Your task to perform on an android device: stop showing notifications on the lock screen Image 0: 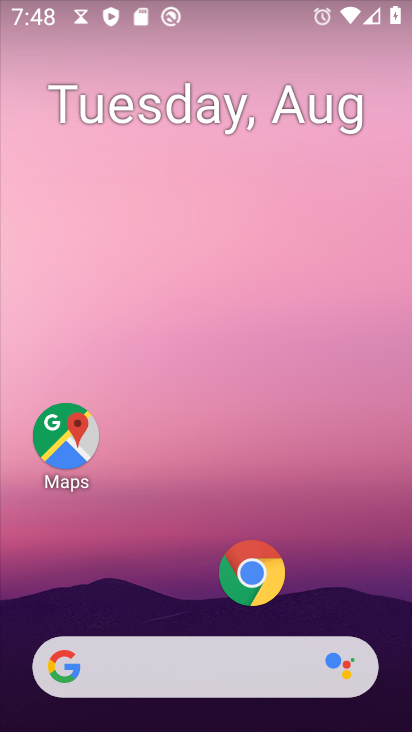
Step 0: click (215, 60)
Your task to perform on an android device: stop showing notifications on the lock screen Image 1: 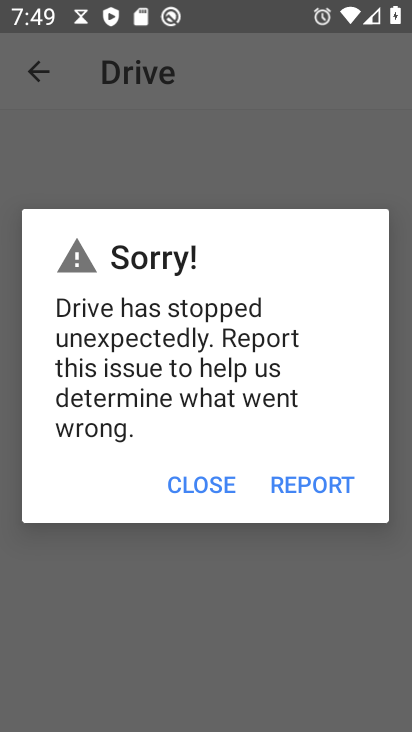
Step 1: press home button
Your task to perform on an android device: stop showing notifications on the lock screen Image 2: 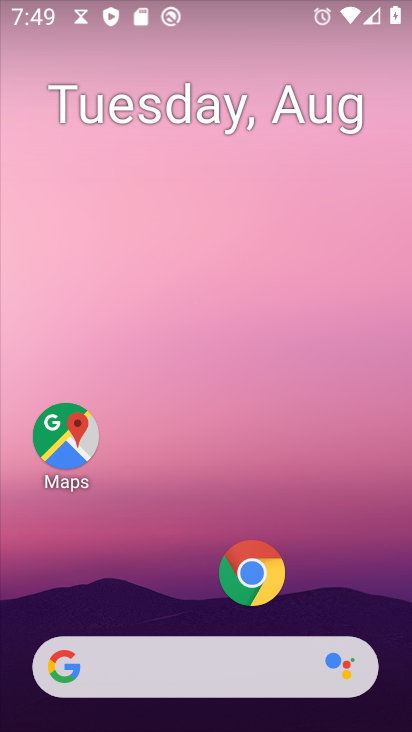
Step 2: drag from (195, 614) to (198, 30)
Your task to perform on an android device: stop showing notifications on the lock screen Image 3: 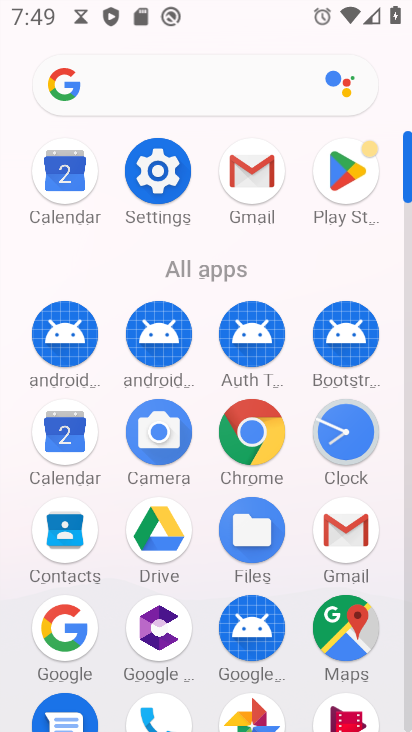
Step 3: click (160, 167)
Your task to perform on an android device: stop showing notifications on the lock screen Image 4: 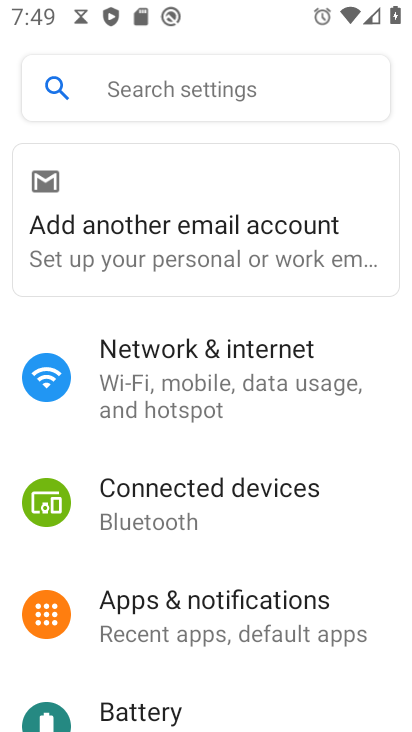
Step 4: click (142, 615)
Your task to perform on an android device: stop showing notifications on the lock screen Image 5: 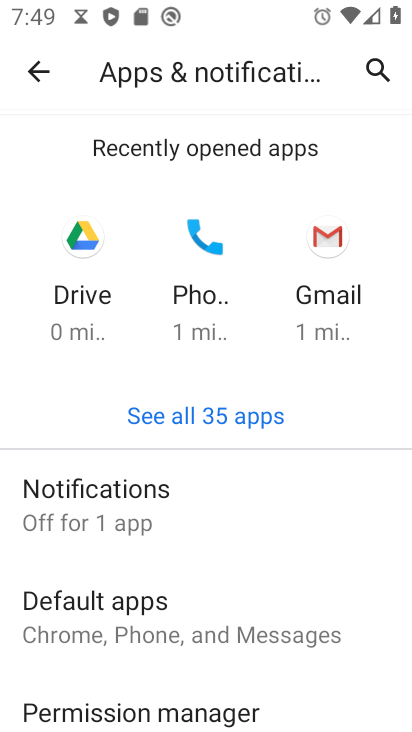
Step 5: click (138, 505)
Your task to perform on an android device: stop showing notifications on the lock screen Image 6: 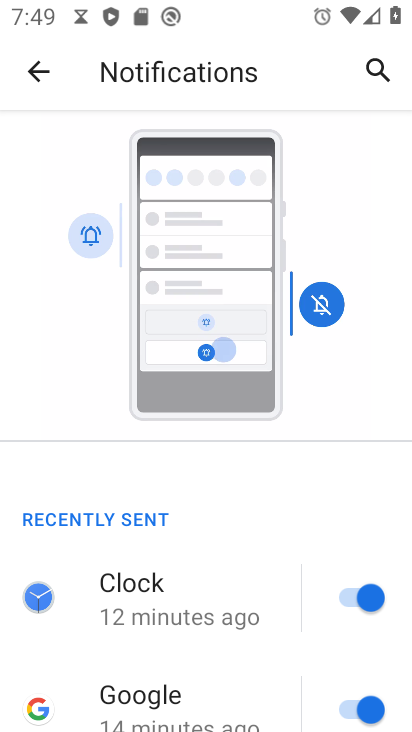
Step 6: drag from (201, 640) to (217, 123)
Your task to perform on an android device: stop showing notifications on the lock screen Image 7: 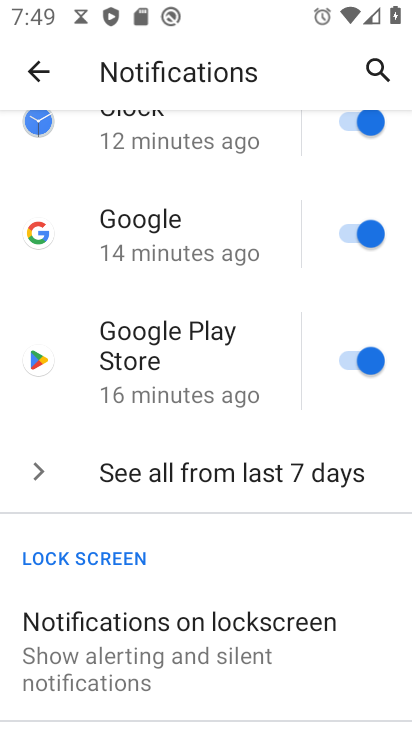
Step 7: click (250, 662)
Your task to perform on an android device: stop showing notifications on the lock screen Image 8: 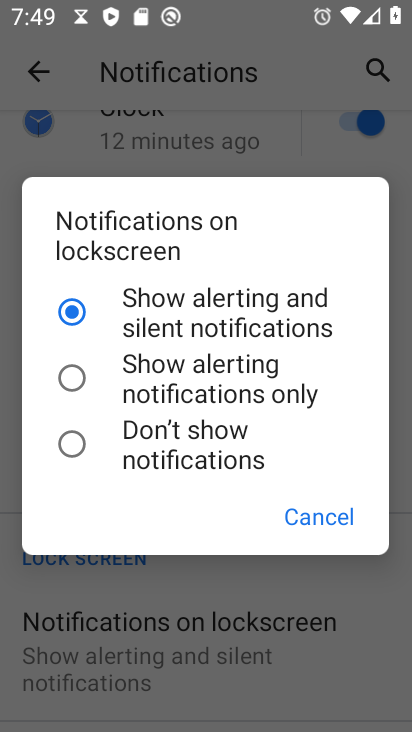
Step 8: click (78, 441)
Your task to perform on an android device: stop showing notifications on the lock screen Image 9: 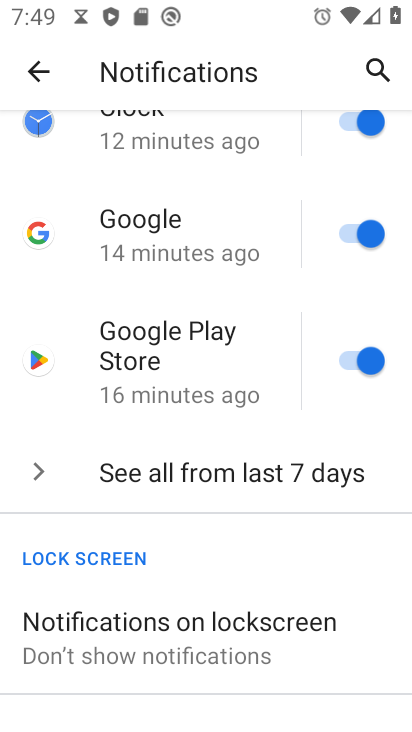
Step 9: click (173, 644)
Your task to perform on an android device: stop showing notifications on the lock screen Image 10: 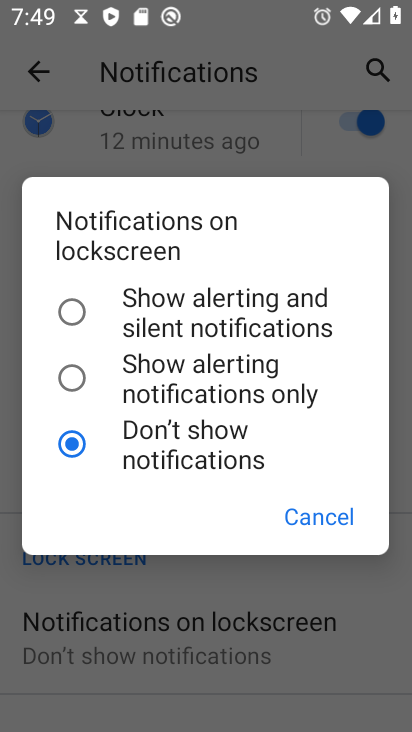
Step 10: task complete